Your task to perform on an android device: Show me the alarms in the clock app Image 0: 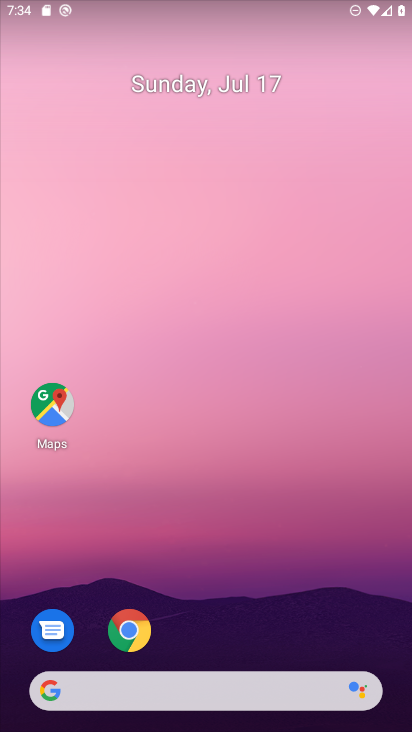
Step 0: drag from (334, 611) to (162, 36)
Your task to perform on an android device: Show me the alarms in the clock app Image 1: 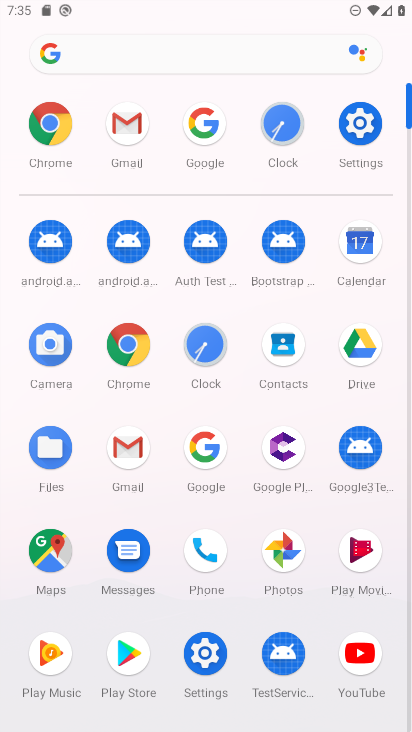
Step 1: click (218, 345)
Your task to perform on an android device: Show me the alarms in the clock app Image 2: 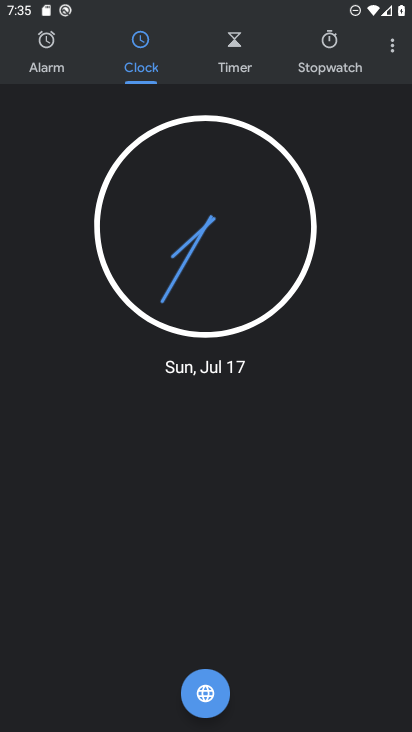
Step 2: click (48, 50)
Your task to perform on an android device: Show me the alarms in the clock app Image 3: 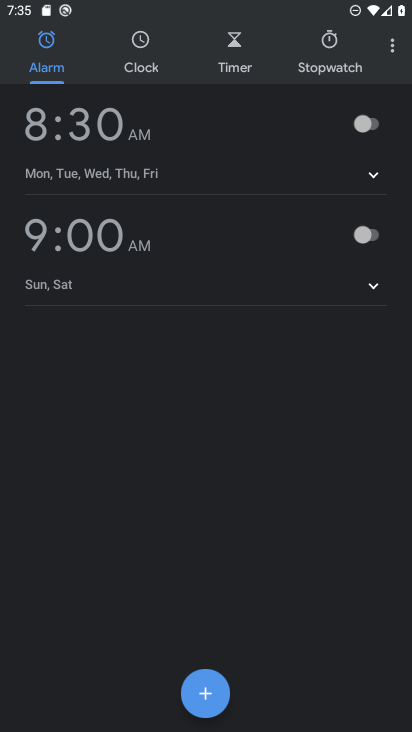
Step 3: task complete